Your task to perform on an android device: open app "Instagram" (install if not already installed) and go to login screen Image 0: 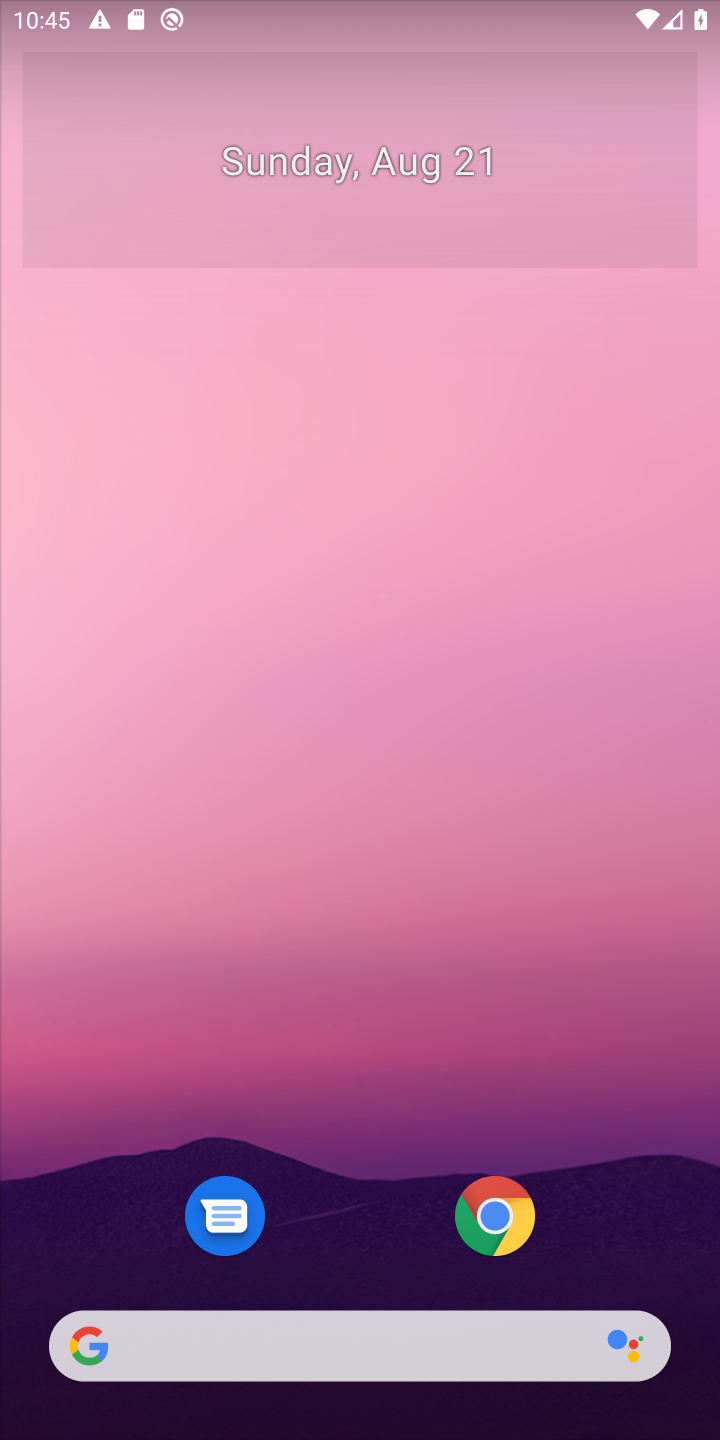
Step 0: drag from (699, 532) to (27, 216)
Your task to perform on an android device: open app "Instagram" (install if not already installed) and go to login screen Image 1: 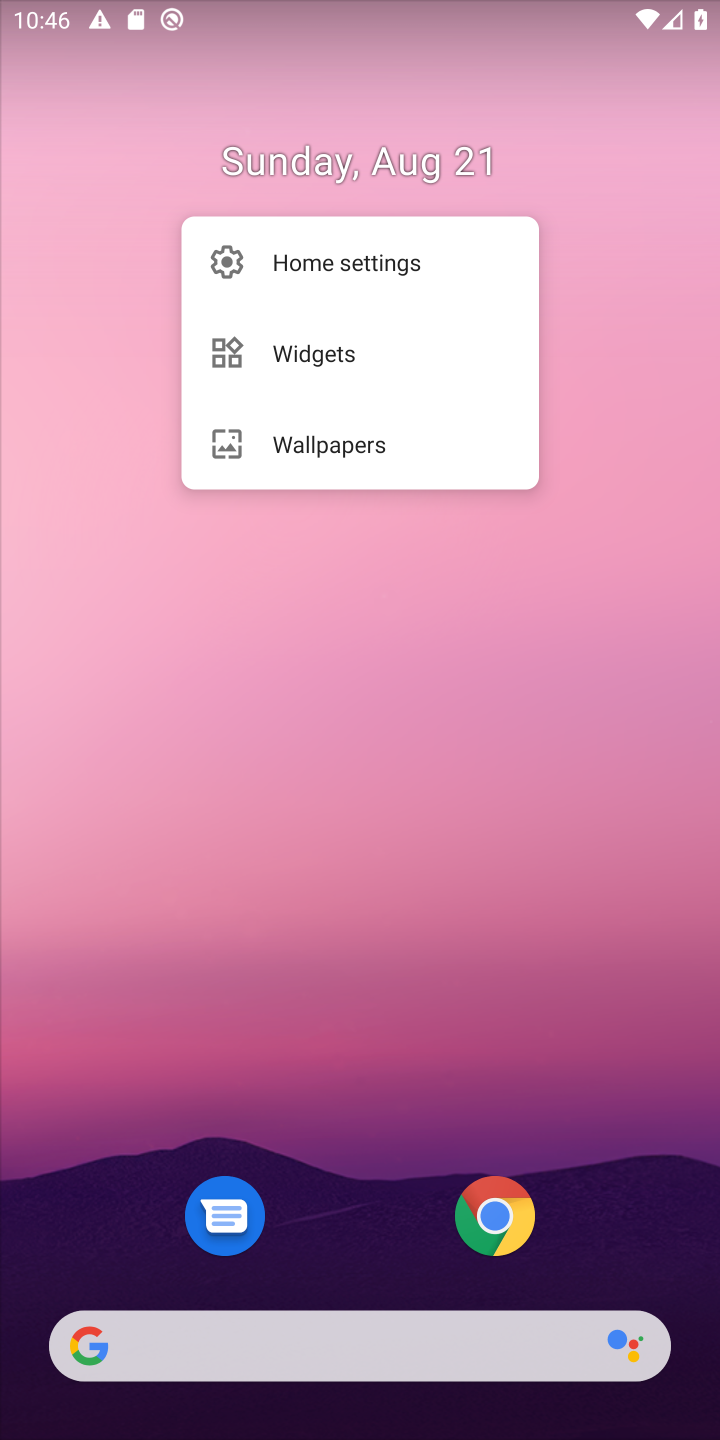
Step 1: click (155, 984)
Your task to perform on an android device: open app "Instagram" (install if not already installed) and go to login screen Image 2: 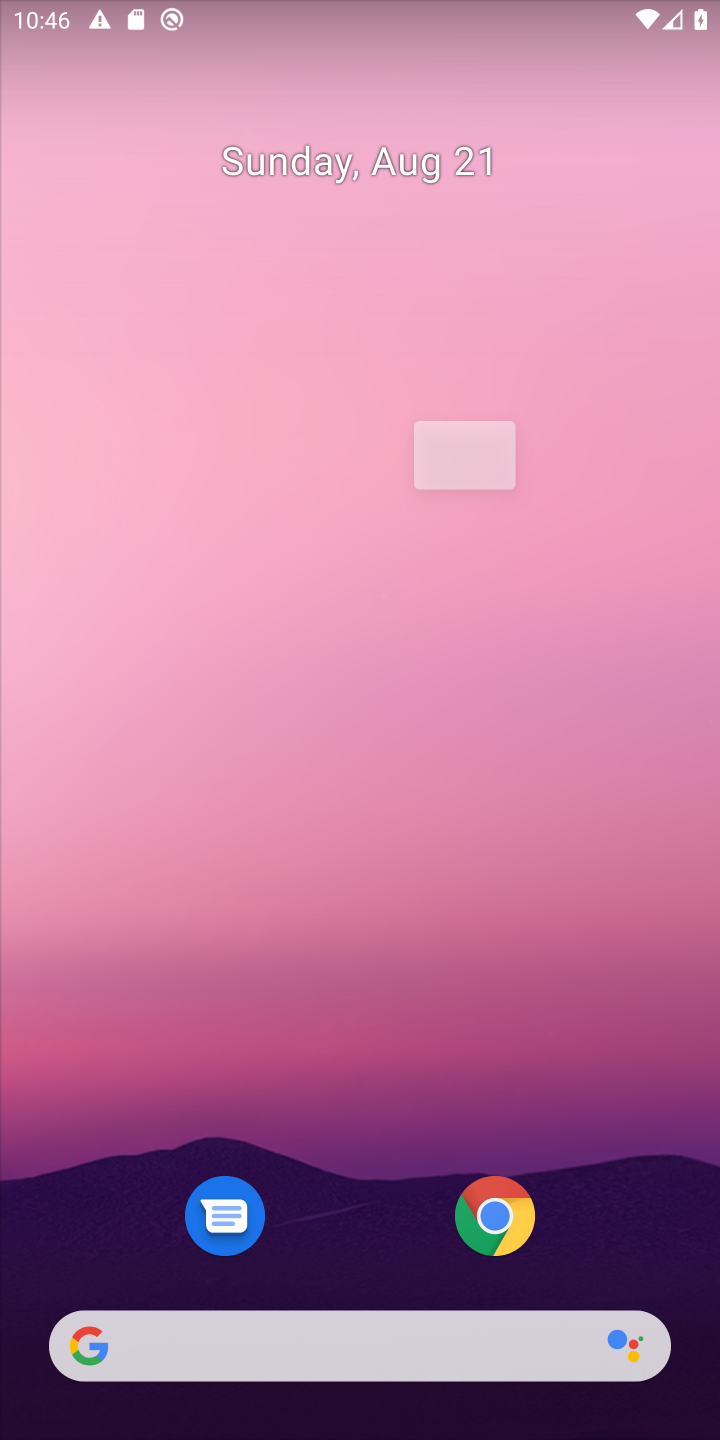
Step 2: drag from (343, 1401) to (557, 58)
Your task to perform on an android device: open app "Instagram" (install if not already installed) and go to login screen Image 3: 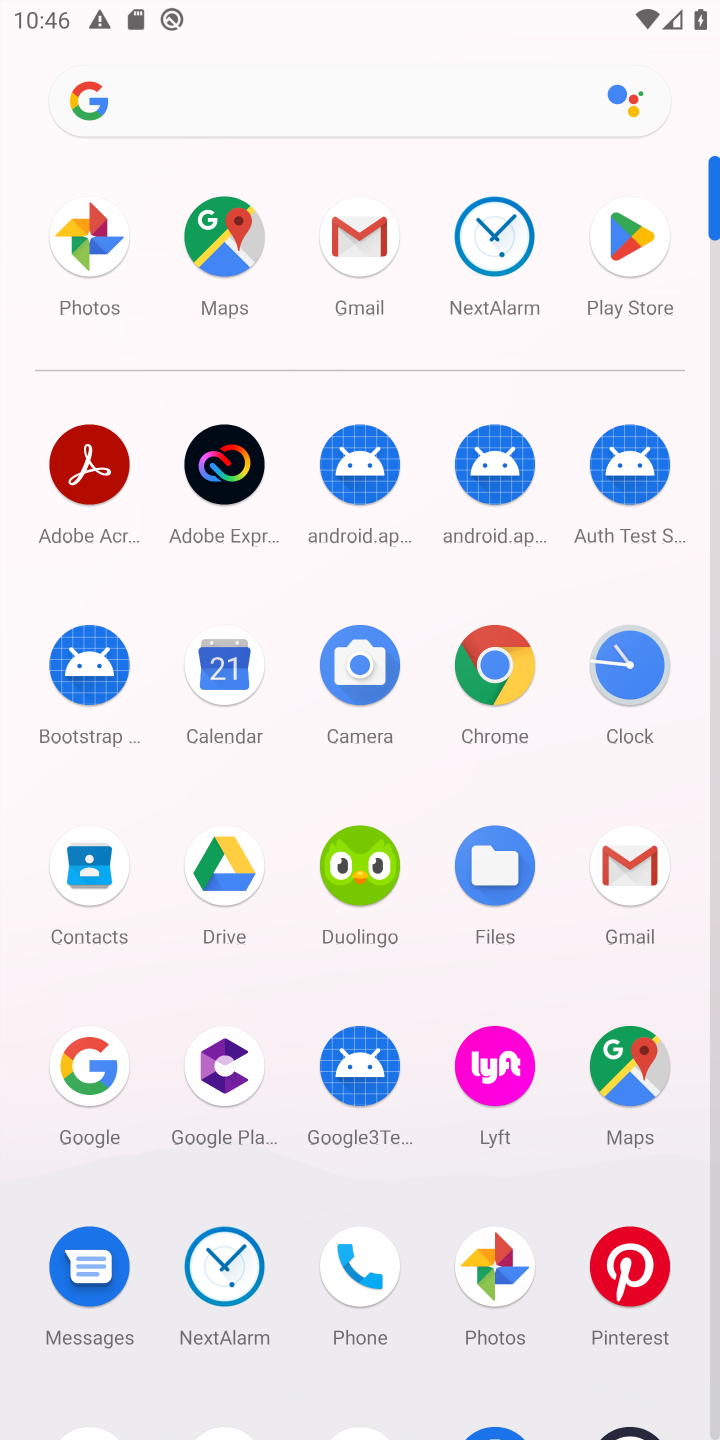
Step 3: click (626, 225)
Your task to perform on an android device: open app "Instagram" (install if not already installed) and go to login screen Image 4: 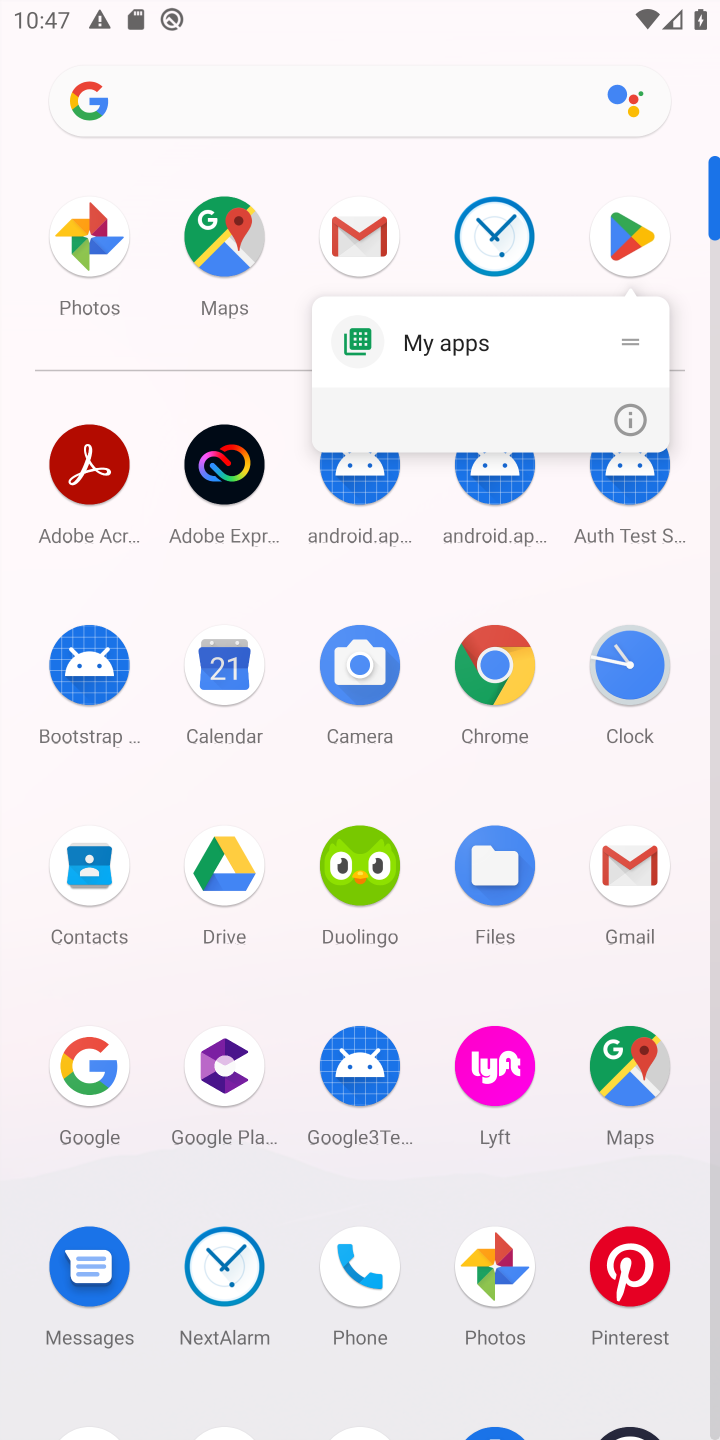
Step 4: click (636, 249)
Your task to perform on an android device: open app "Instagram" (install if not already installed) and go to login screen Image 5: 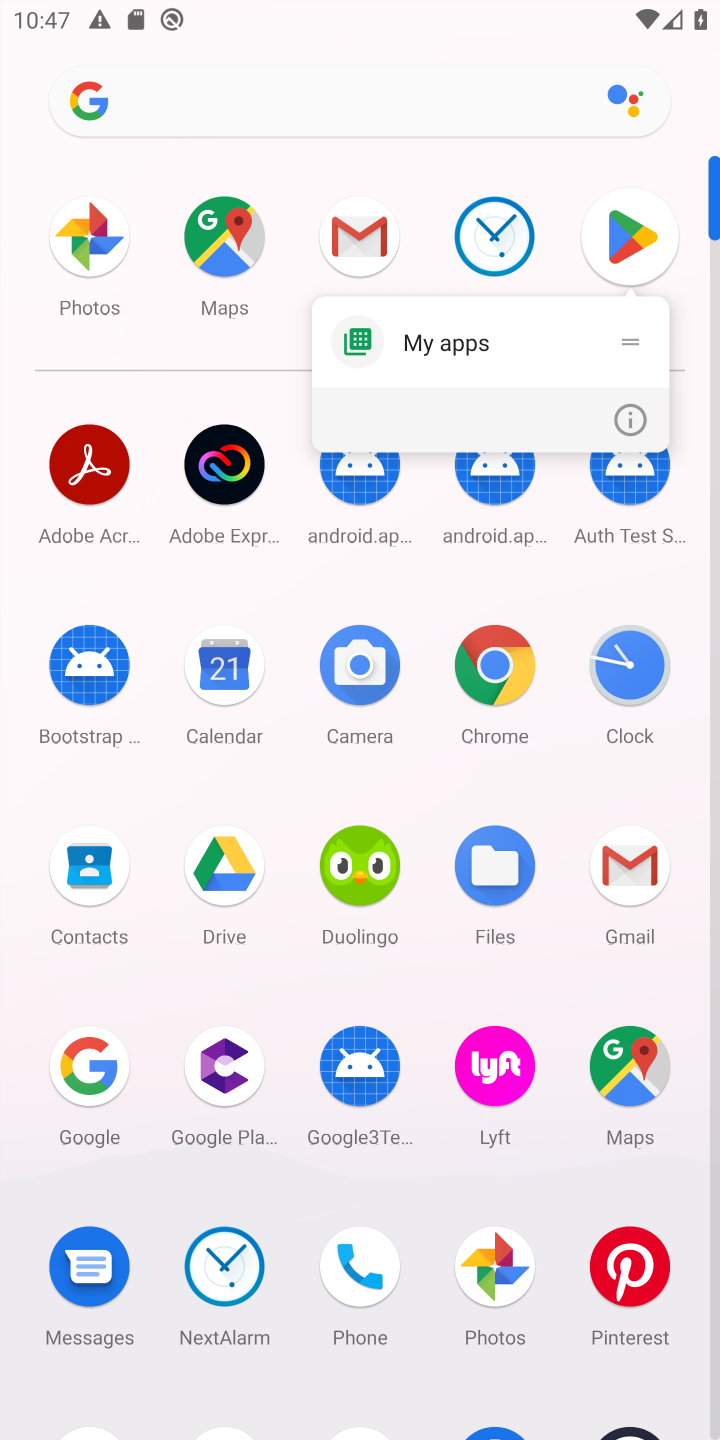
Step 5: click (624, 232)
Your task to perform on an android device: open app "Instagram" (install if not already installed) and go to login screen Image 6: 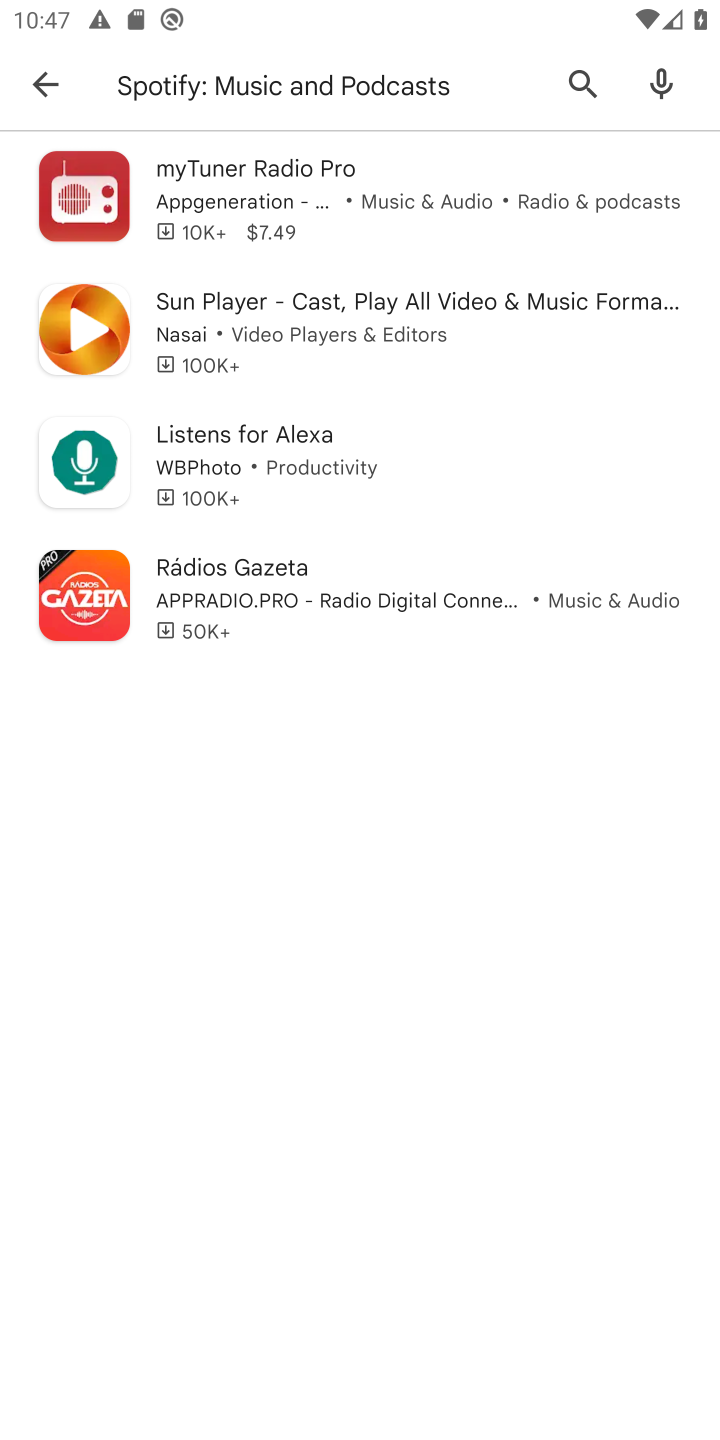
Step 6: press back button
Your task to perform on an android device: open app "Instagram" (install if not already installed) and go to login screen Image 7: 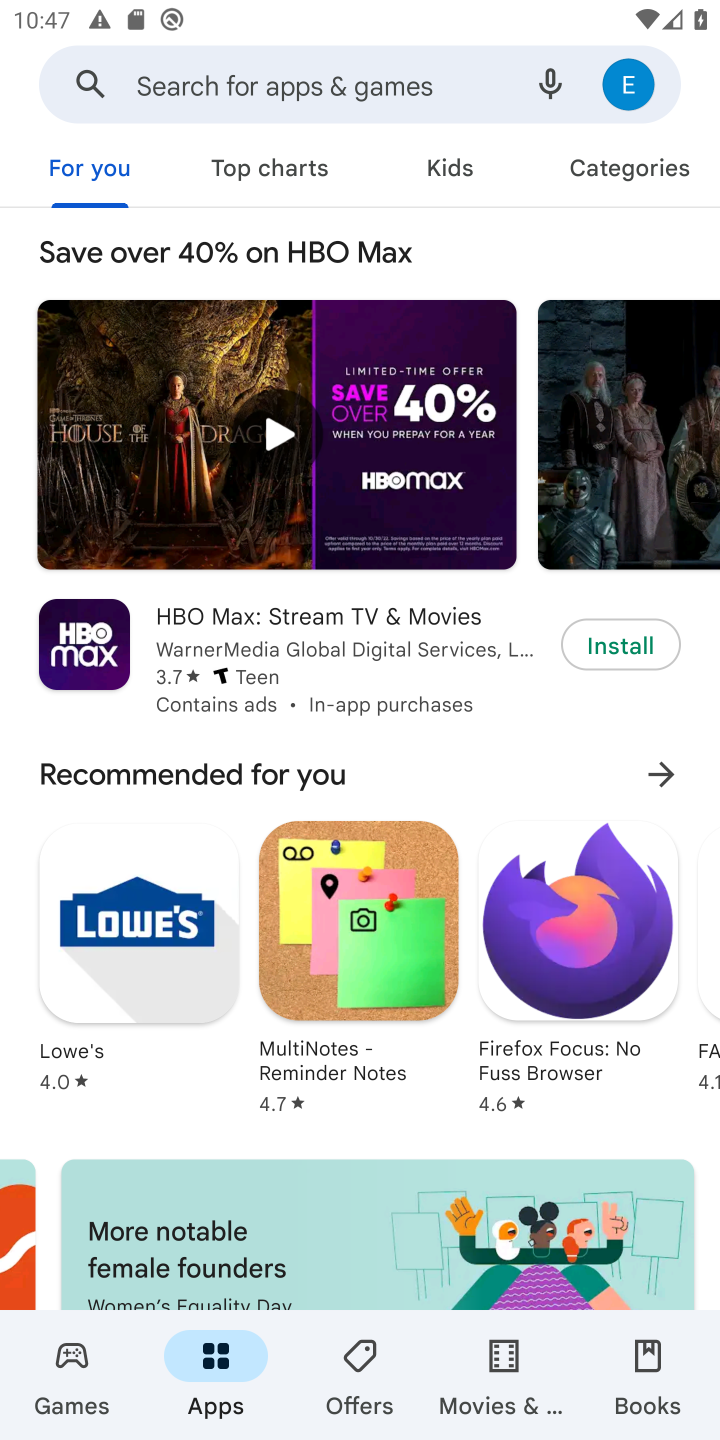
Step 7: click (271, 95)
Your task to perform on an android device: open app "Instagram" (install if not already installed) and go to login screen Image 8: 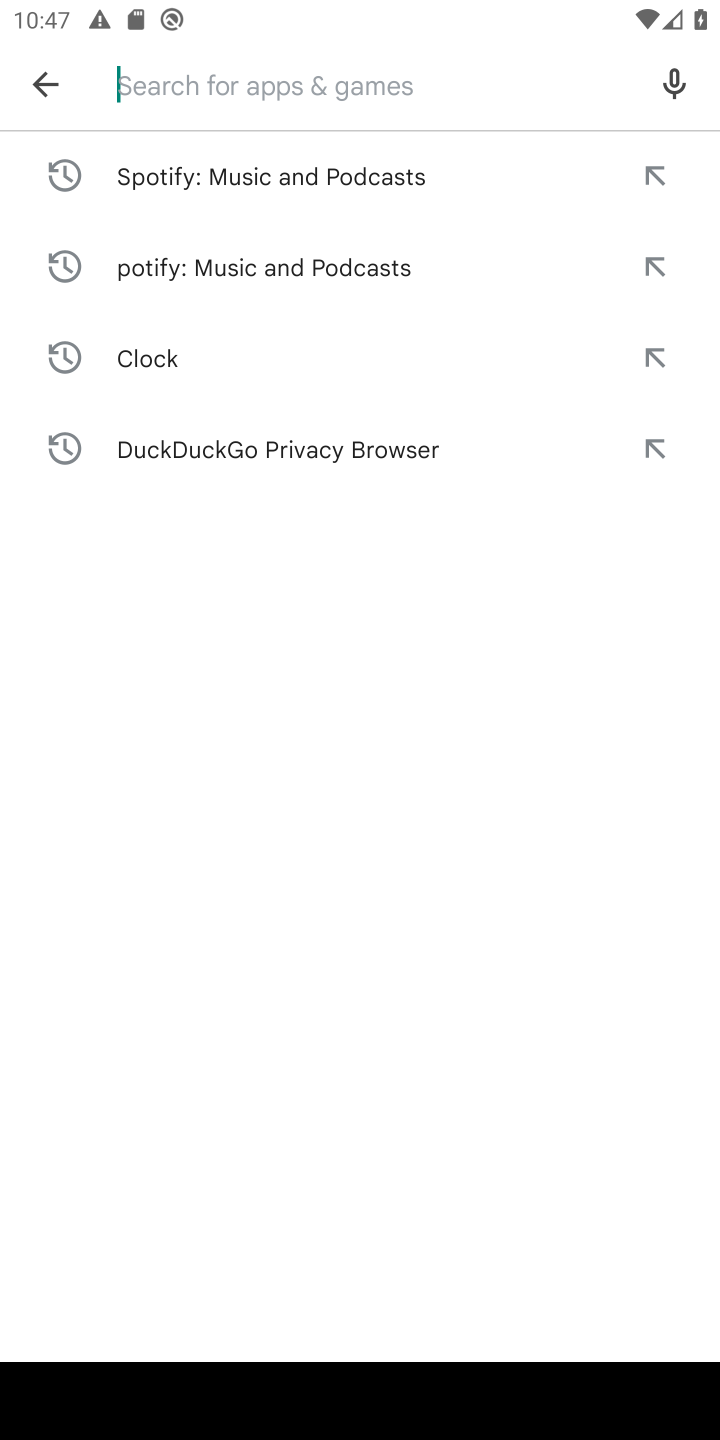
Step 8: type "Instagram"
Your task to perform on an android device: open app "Instagram" (install if not already installed) and go to login screen Image 9: 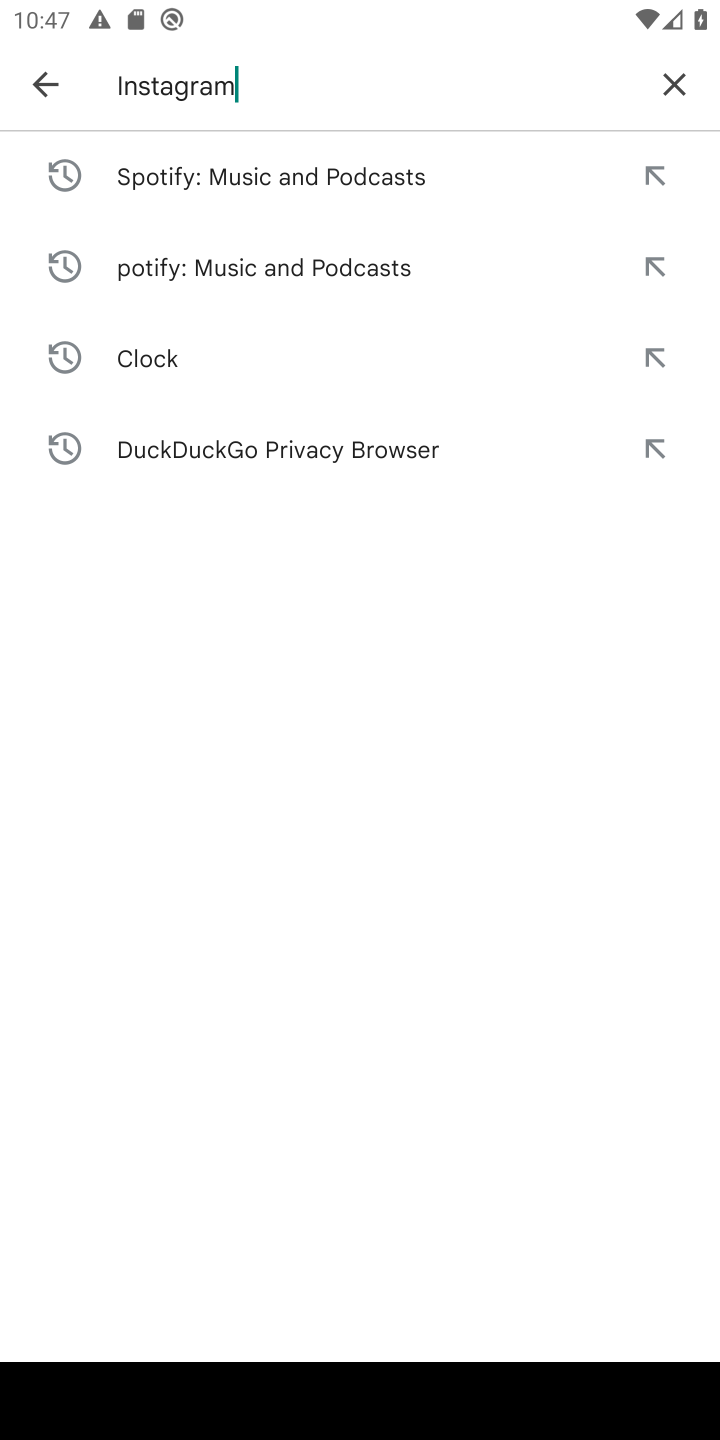
Step 9: press enter
Your task to perform on an android device: open app "Instagram" (install if not already installed) and go to login screen Image 10: 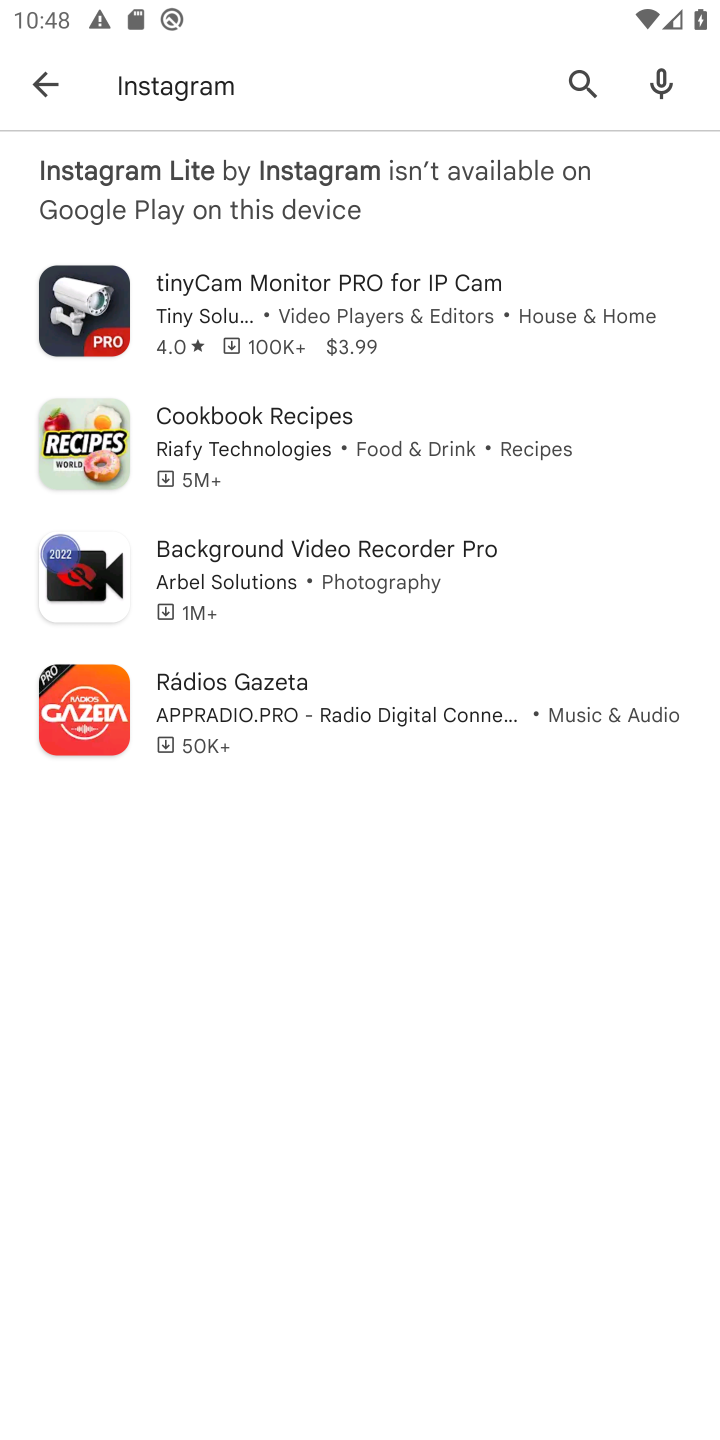
Step 10: task complete